Your task to perform on an android device: Open location settings Image 0: 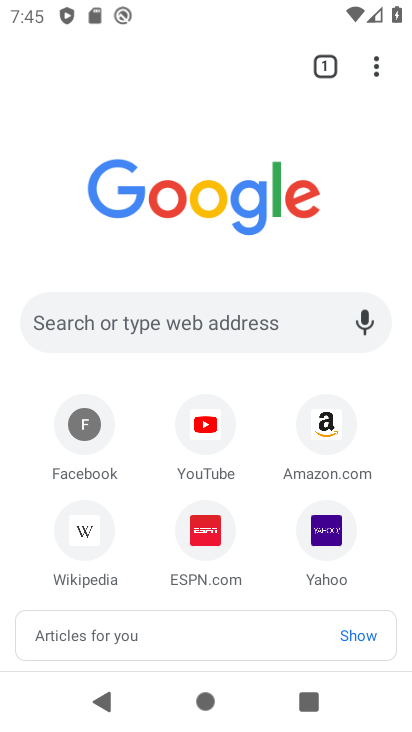
Step 0: press home button
Your task to perform on an android device: Open location settings Image 1: 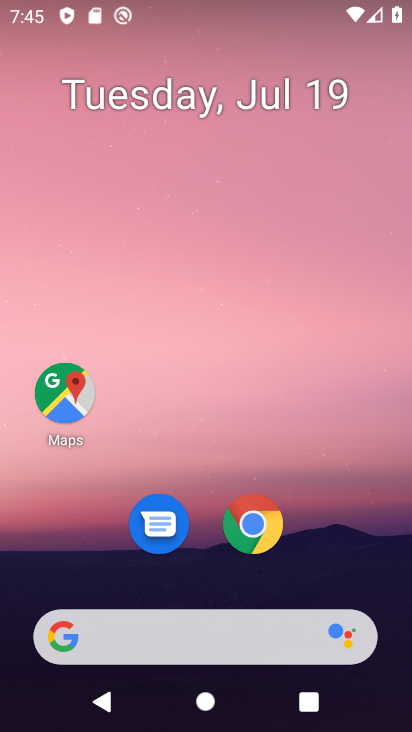
Step 1: drag from (316, 549) to (368, 36)
Your task to perform on an android device: Open location settings Image 2: 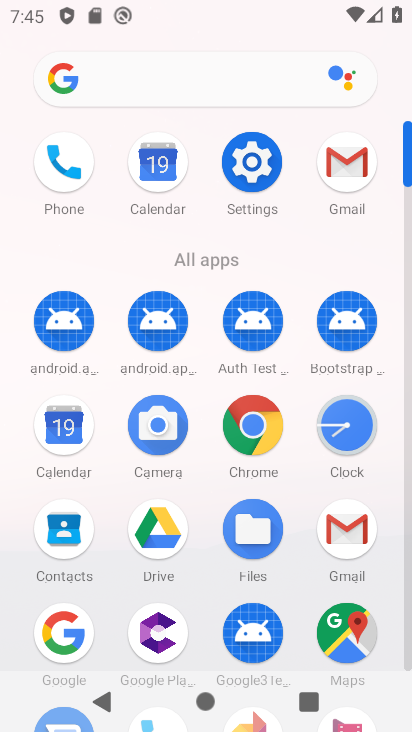
Step 2: click (243, 167)
Your task to perform on an android device: Open location settings Image 3: 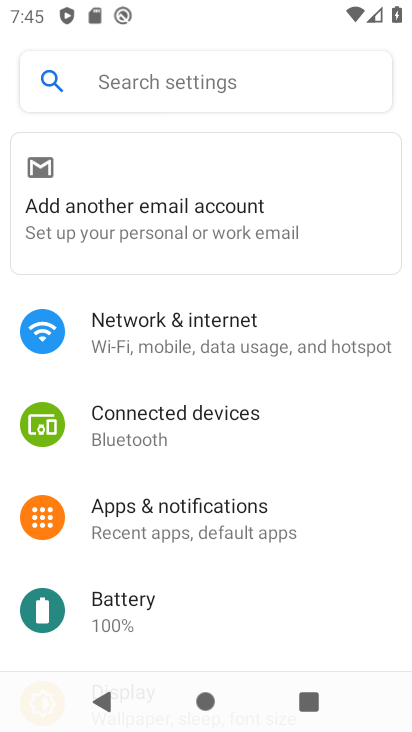
Step 3: drag from (207, 586) to (240, 21)
Your task to perform on an android device: Open location settings Image 4: 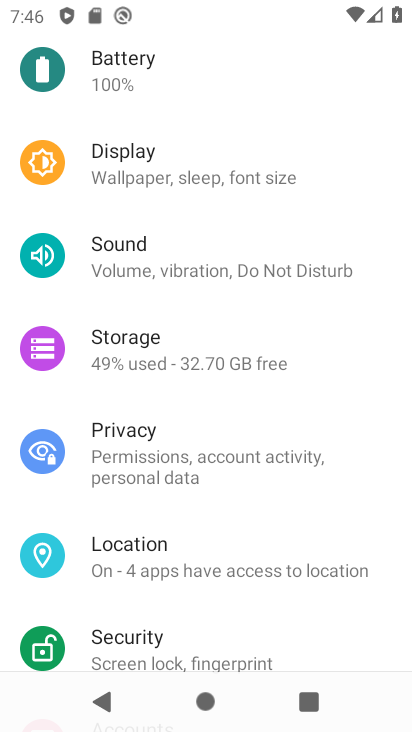
Step 4: click (188, 556)
Your task to perform on an android device: Open location settings Image 5: 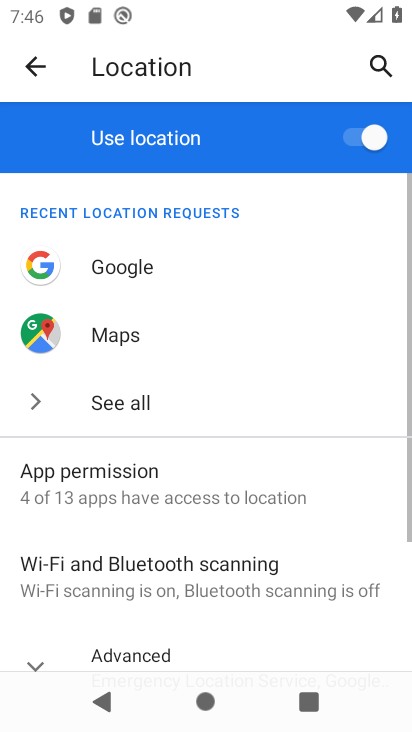
Step 5: task complete